Your task to perform on an android device: change text size in settings app Image 0: 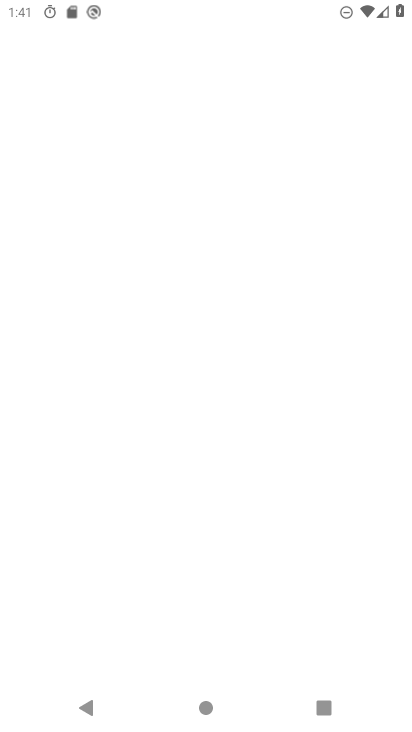
Step 0: drag from (274, 686) to (286, 241)
Your task to perform on an android device: change text size in settings app Image 1: 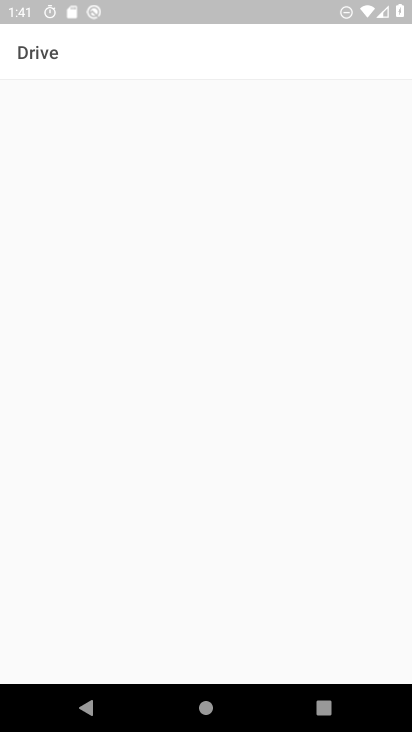
Step 1: press home button
Your task to perform on an android device: change text size in settings app Image 2: 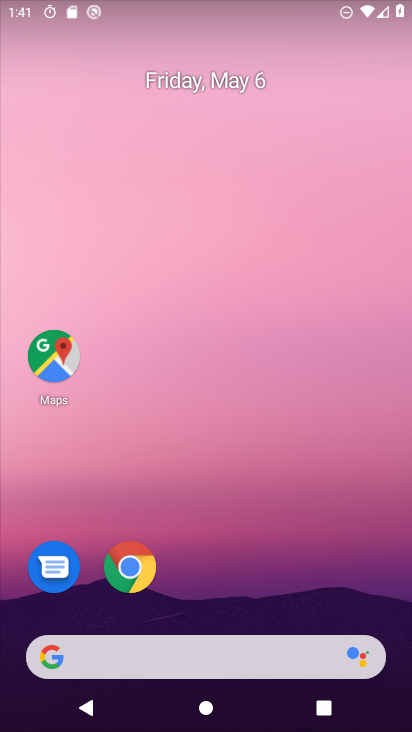
Step 2: drag from (246, 674) to (269, 246)
Your task to perform on an android device: change text size in settings app Image 3: 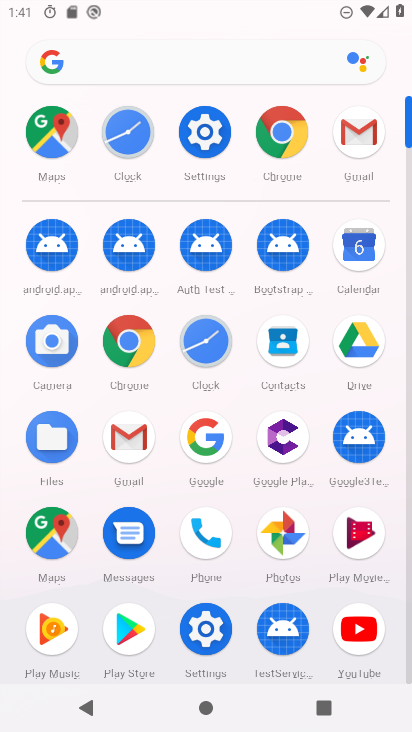
Step 3: click (207, 633)
Your task to perform on an android device: change text size in settings app Image 4: 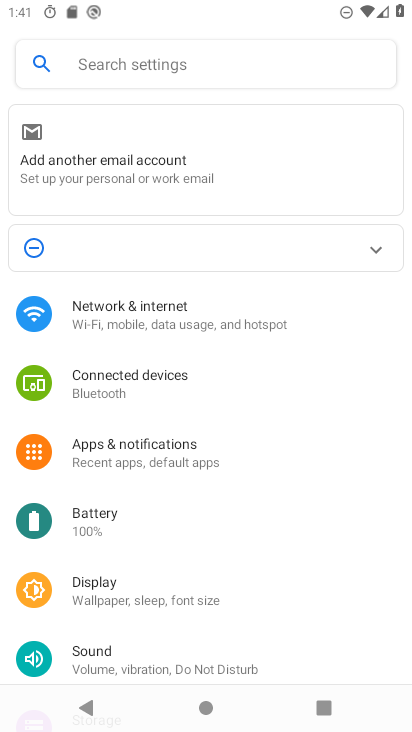
Step 4: click (134, 76)
Your task to perform on an android device: change text size in settings app Image 5: 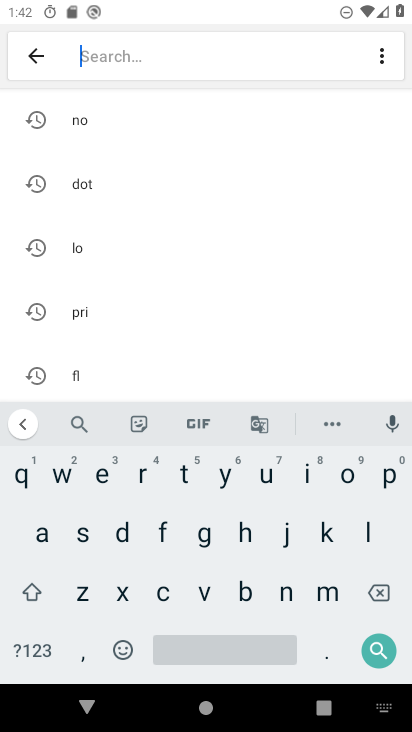
Step 5: click (83, 534)
Your task to perform on an android device: change text size in settings app Image 6: 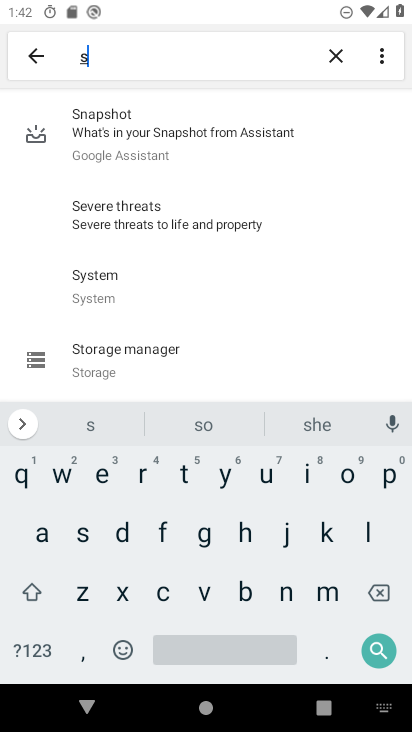
Step 6: click (310, 474)
Your task to perform on an android device: change text size in settings app Image 7: 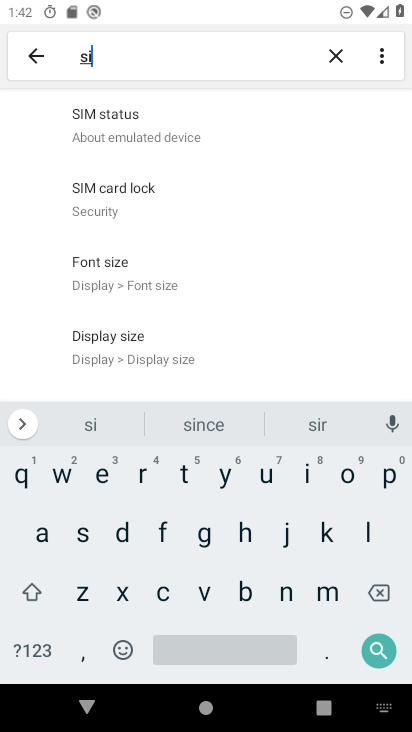
Step 7: click (79, 593)
Your task to perform on an android device: change text size in settings app Image 8: 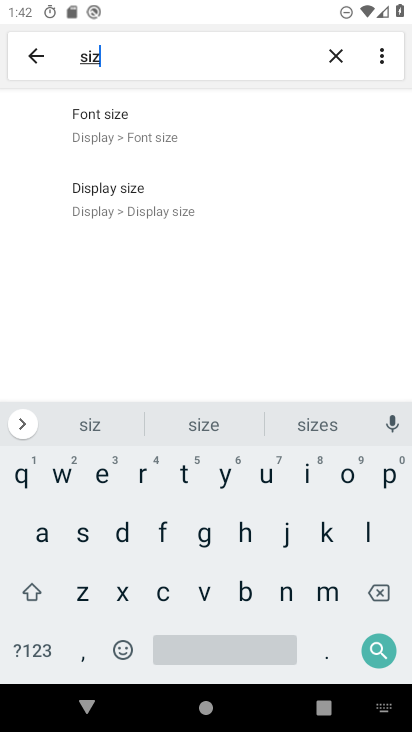
Step 8: click (175, 123)
Your task to perform on an android device: change text size in settings app Image 9: 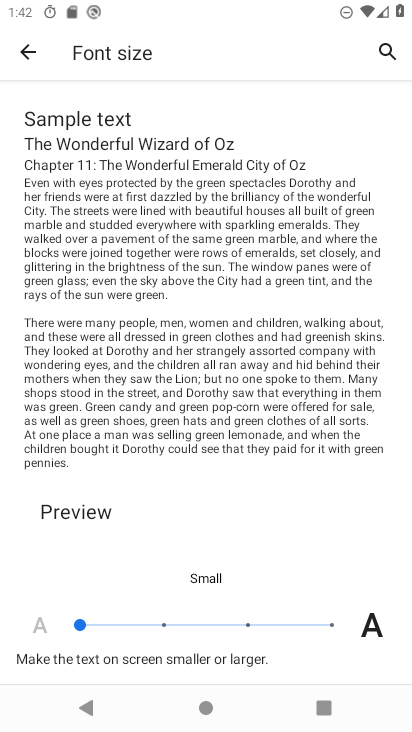
Step 9: click (156, 624)
Your task to perform on an android device: change text size in settings app Image 10: 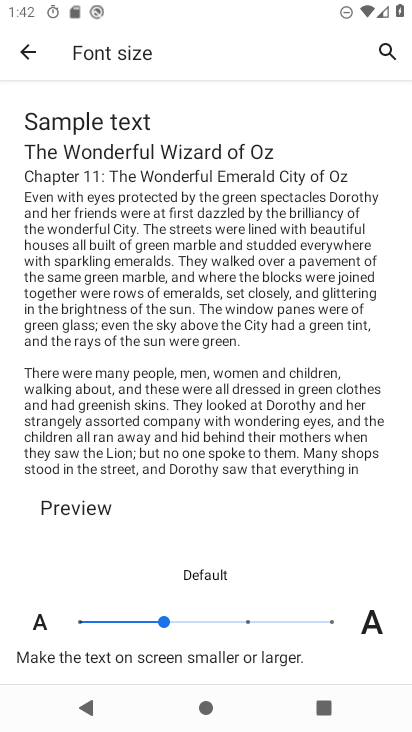
Step 10: task complete